Your task to perform on an android device: turn on sleep mode Image 0: 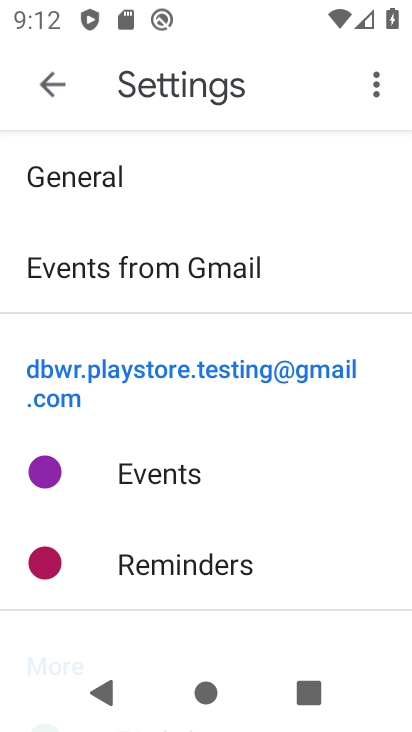
Step 0: press home button
Your task to perform on an android device: turn on sleep mode Image 1: 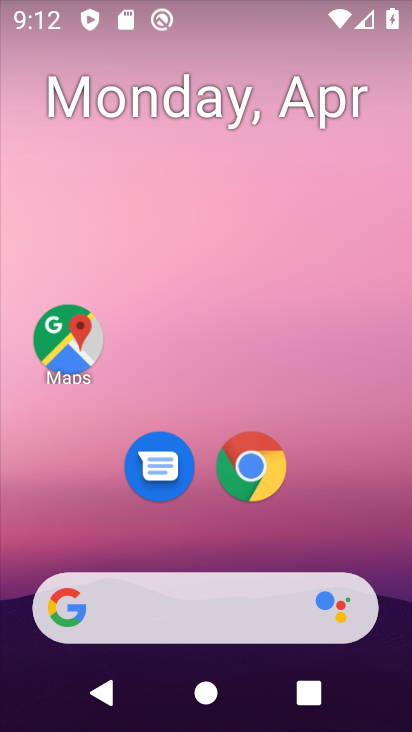
Step 1: drag from (175, 539) to (283, 127)
Your task to perform on an android device: turn on sleep mode Image 2: 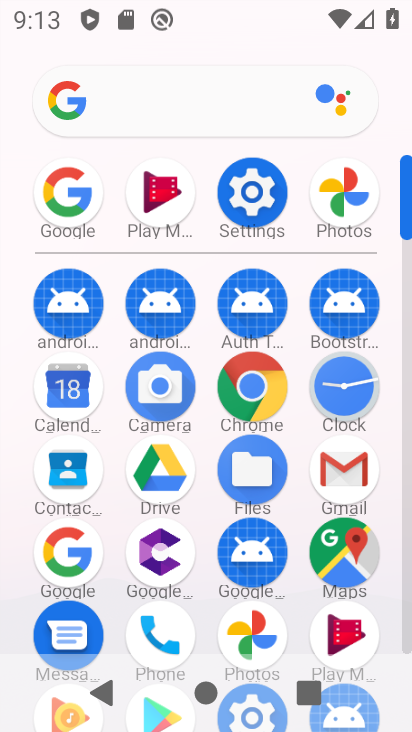
Step 2: click (256, 189)
Your task to perform on an android device: turn on sleep mode Image 3: 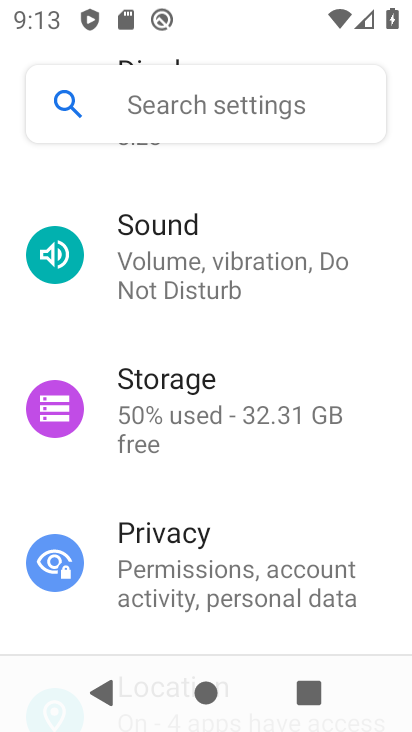
Step 3: drag from (261, 264) to (288, 394)
Your task to perform on an android device: turn on sleep mode Image 4: 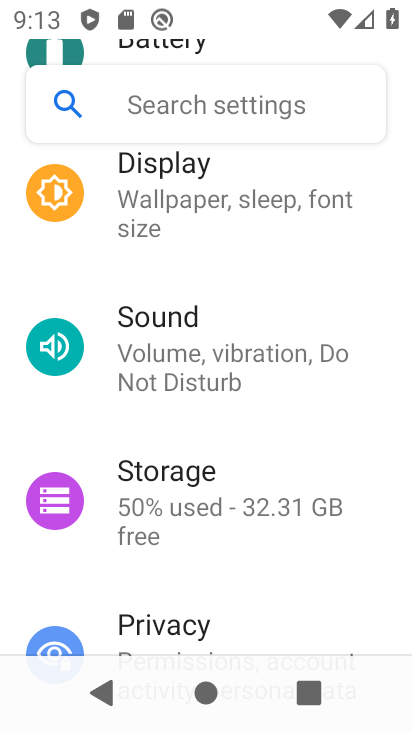
Step 4: drag from (270, 275) to (289, 449)
Your task to perform on an android device: turn on sleep mode Image 5: 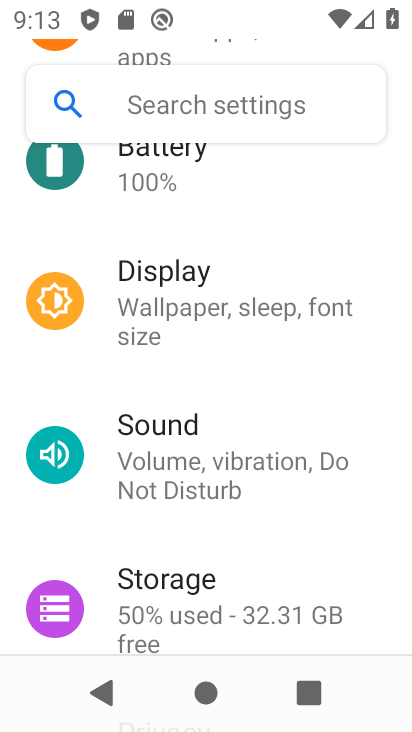
Step 5: click (271, 303)
Your task to perform on an android device: turn on sleep mode Image 6: 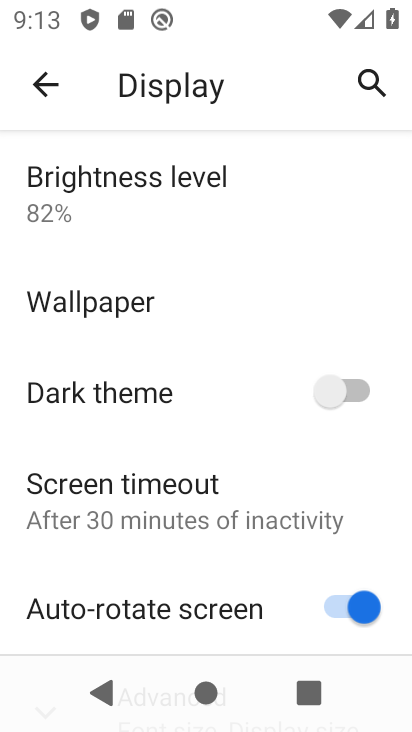
Step 6: click (163, 173)
Your task to perform on an android device: turn on sleep mode Image 7: 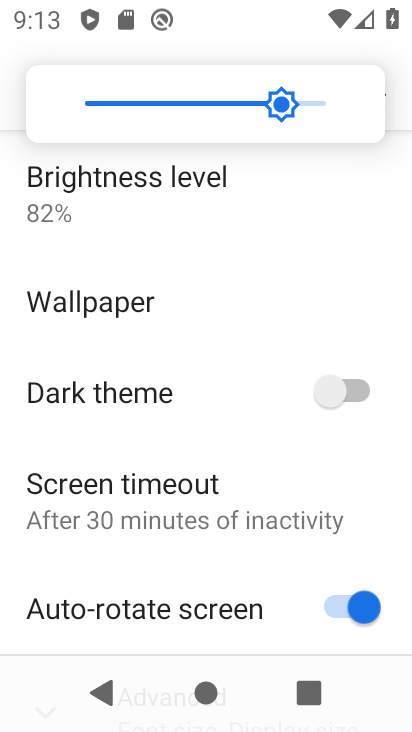
Step 7: click (112, 302)
Your task to perform on an android device: turn on sleep mode Image 8: 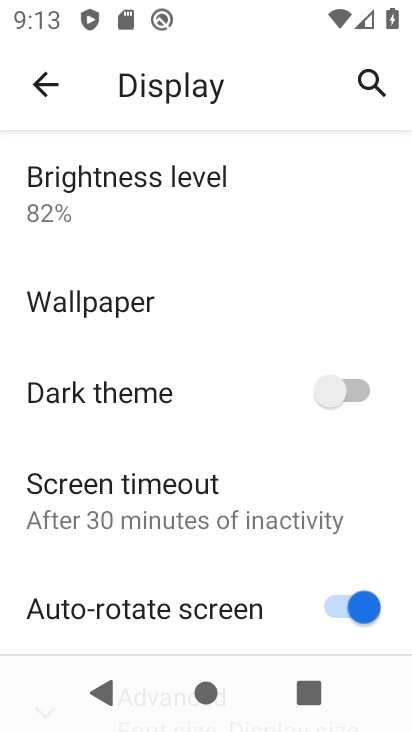
Step 8: click (162, 494)
Your task to perform on an android device: turn on sleep mode Image 9: 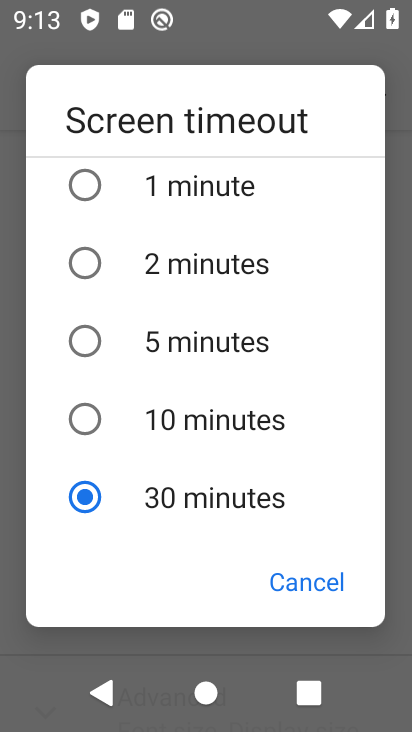
Step 9: drag from (211, 417) to (230, 493)
Your task to perform on an android device: turn on sleep mode Image 10: 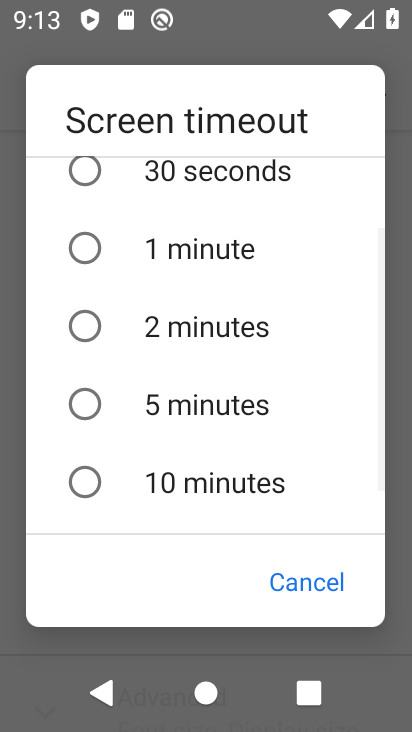
Step 10: drag from (291, 297) to (264, 411)
Your task to perform on an android device: turn on sleep mode Image 11: 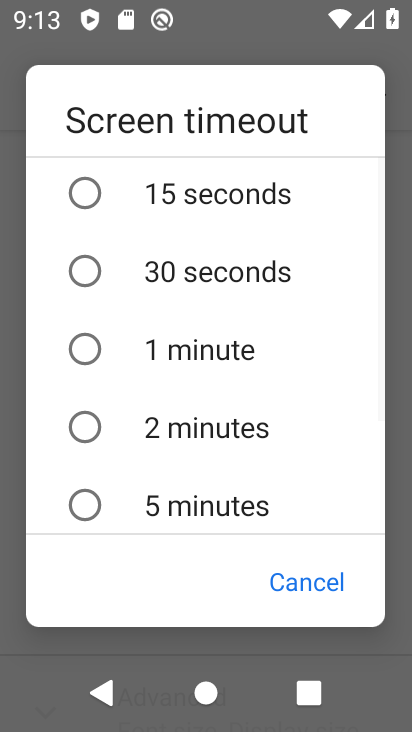
Step 11: click (264, 411)
Your task to perform on an android device: turn on sleep mode Image 12: 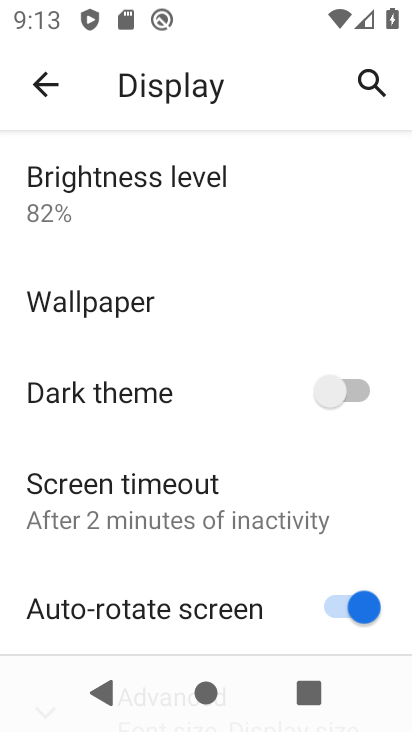
Step 12: drag from (181, 544) to (255, 428)
Your task to perform on an android device: turn on sleep mode Image 13: 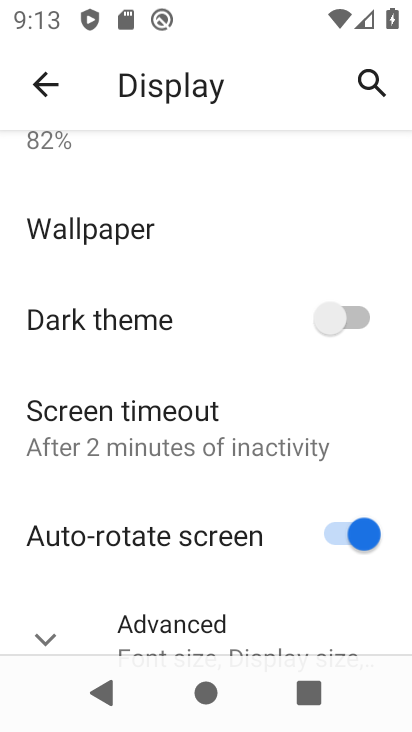
Step 13: drag from (203, 584) to (269, 460)
Your task to perform on an android device: turn on sleep mode Image 14: 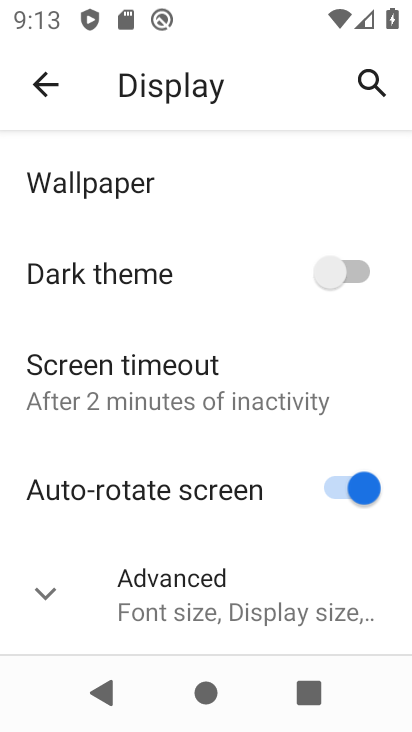
Step 14: click (207, 587)
Your task to perform on an android device: turn on sleep mode Image 15: 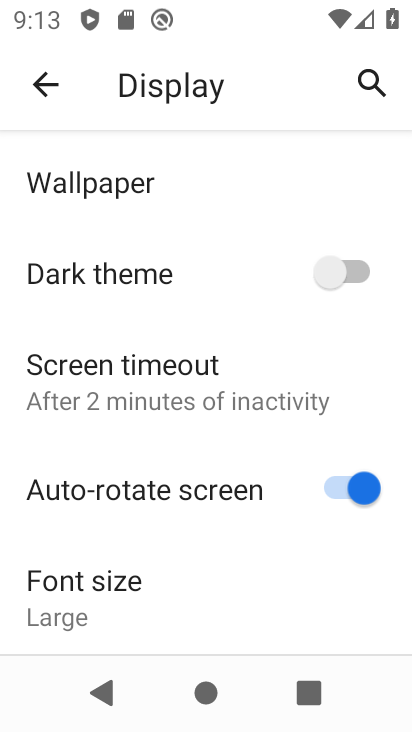
Step 15: drag from (156, 448) to (186, 298)
Your task to perform on an android device: turn on sleep mode Image 16: 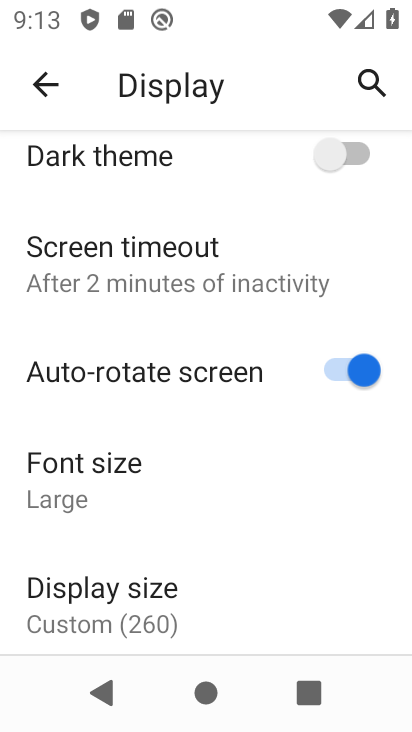
Step 16: drag from (149, 532) to (179, 381)
Your task to perform on an android device: turn on sleep mode Image 17: 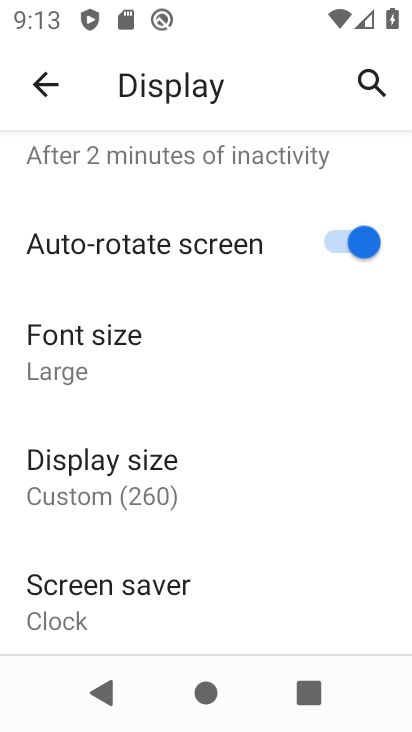
Step 17: drag from (177, 524) to (203, 410)
Your task to perform on an android device: turn on sleep mode Image 18: 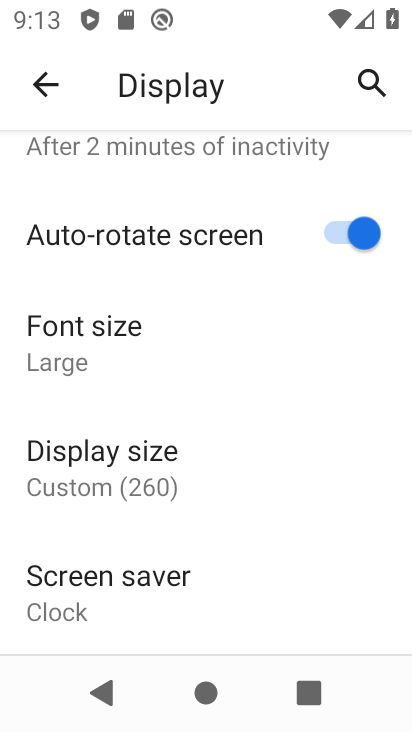
Step 18: click (186, 602)
Your task to perform on an android device: turn on sleep mode Image 19: 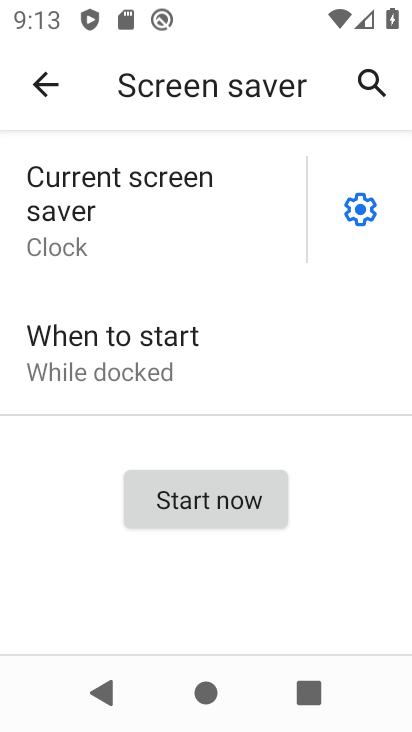
Step 19: task complete